Your task to perform on an android device: Go to eBay Image 0: 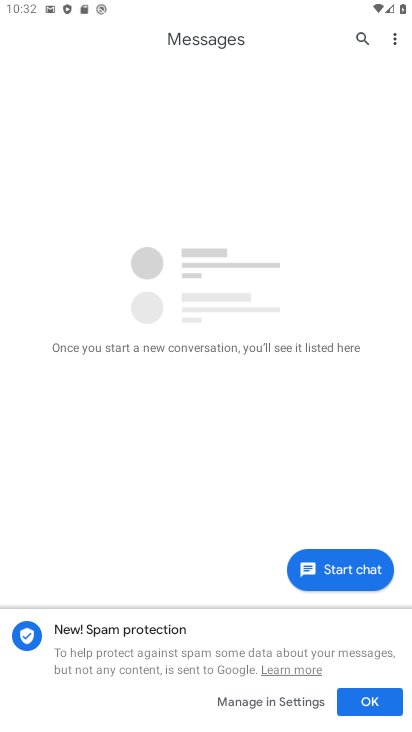
Step 0: press home button
Your task to perform on an android device: Go to eBay Image 1: 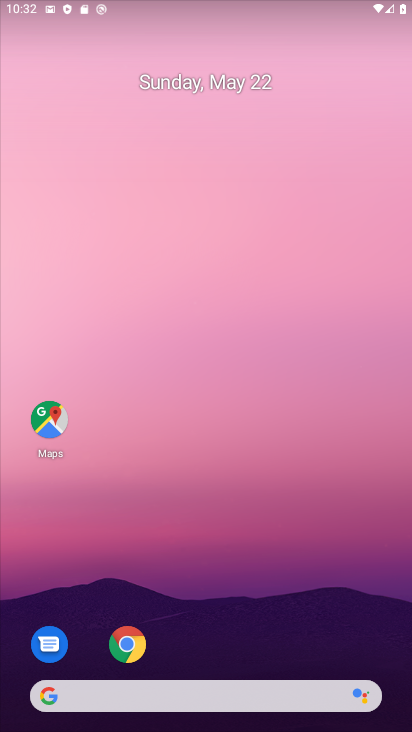
Step 1: drag from (385, 648) to (279, 6)
Your task to perform on an android device: Go to eBay Image 2: 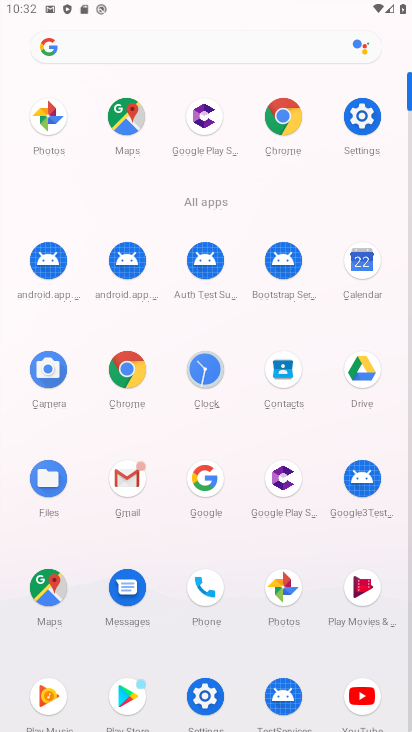
Step 2: click (219, 484)
Your task to perform on an android device: Go to eBay Image 3: 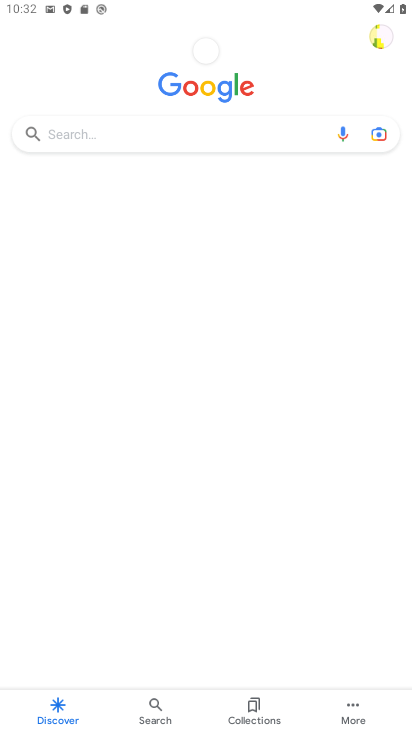
Step 3: click (183, 130)
Your task to perform on an android device: Go to eBay Image 4: 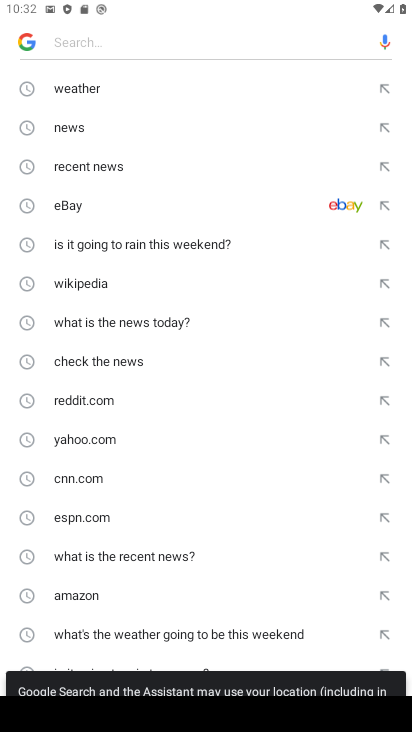
Step 4: click (78, 208)
Your task to perform on an android device: Go to eBay Image 5: 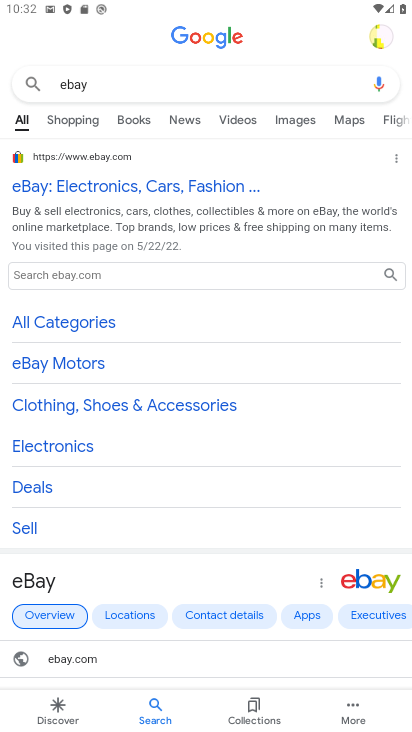
Step 5: task complete